Your task to perform on an android device: change the clock display to digital Image 0: 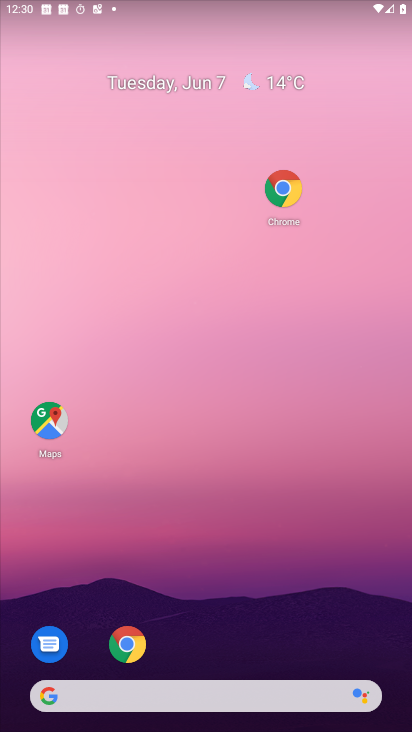
Step 0: drag from (263, 538) to (203, 27)
Your task to perform on an android device: change the clock display to digital Image 1: 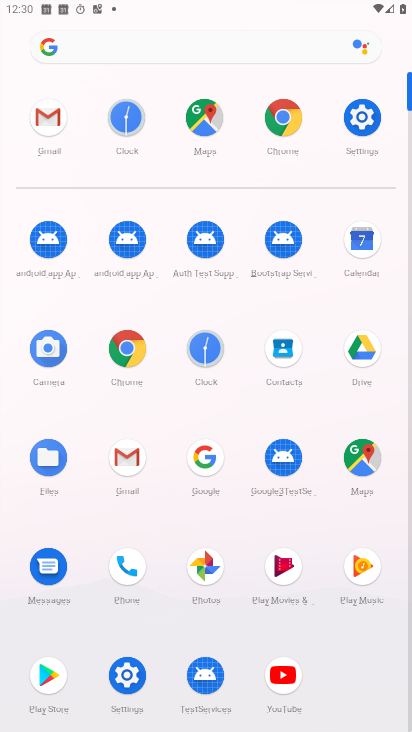
Step 1: click (203, 341)
Your task to perform on an android device: change the clock display to digital Image 2: 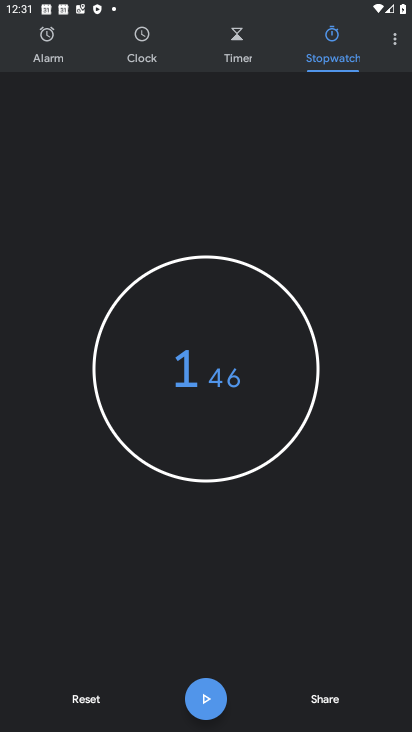
Step 2: click (398, 37)
Your task to perform on an android device: change the clock display to digital Image 3: 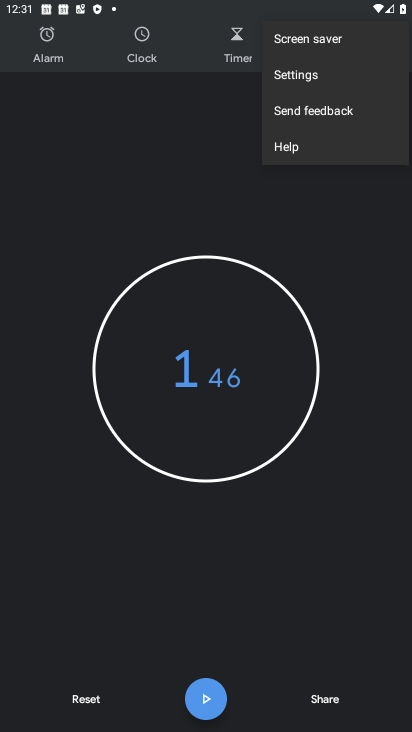
Step 3: click (314, 68)
Your task to perform on an android device: change the clock display to digital Image 4: 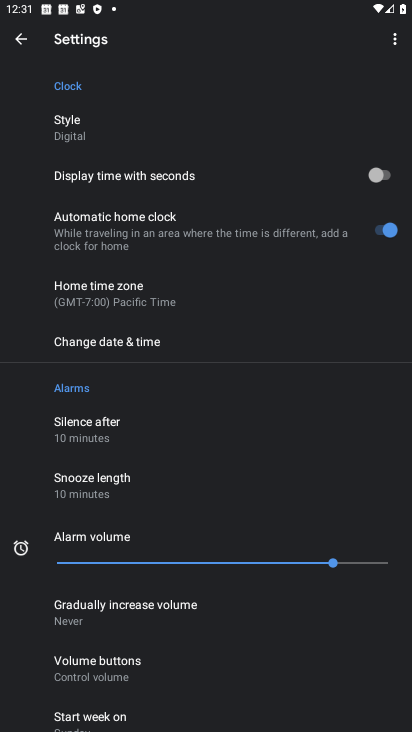
Step 4: click (59, 129)
Your task to perform on an android device: change the clock display to digital Image 5: 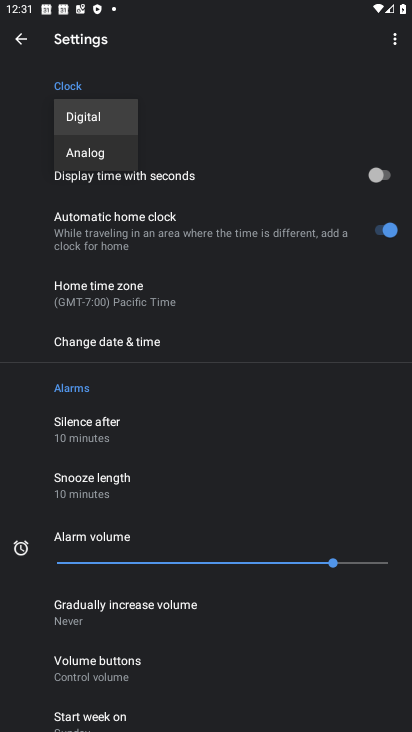
Step 5: task complete